Your task to perform on an android device: Open Google Maps and go to "Timeline" Image 0: 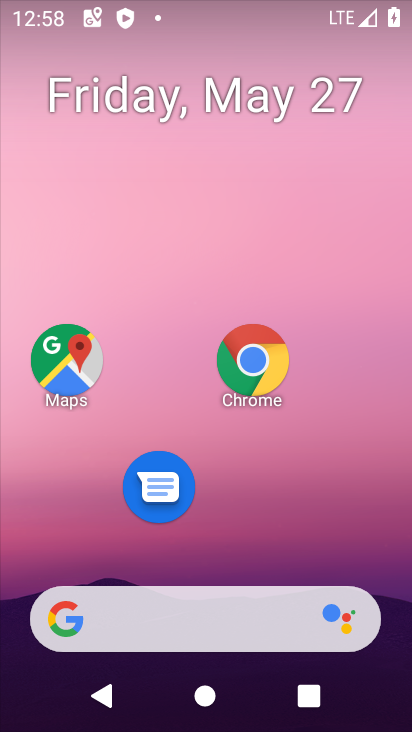
Step 0: click (73, 365)
Your task to perform on an android device: Open Google Maps and go to "Timeline" Image 1: 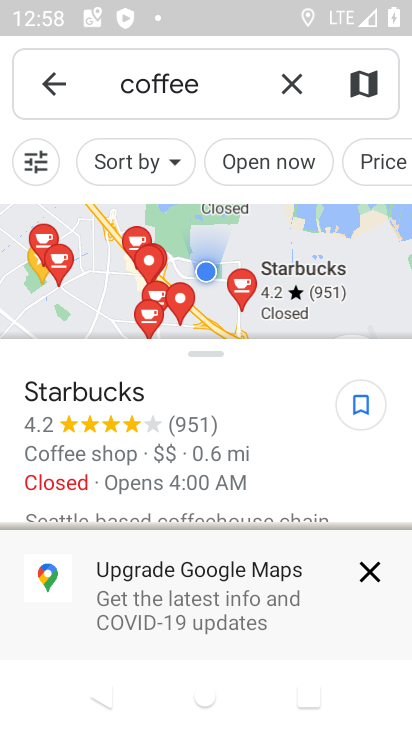
Step 1: click (290, 94)
Your task to perform on an android device: Open Google Maps and go to "Timeline" Image 2: 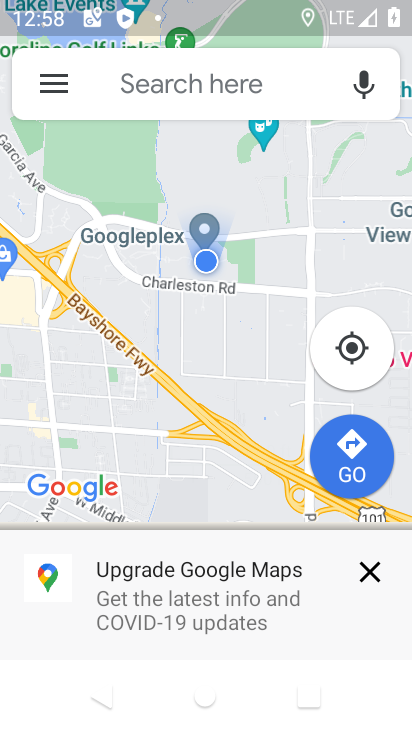
Step 2: click (42, 85)
Your task to perform on an android device: Open Google Maps and go to "Timeline" Image 3: 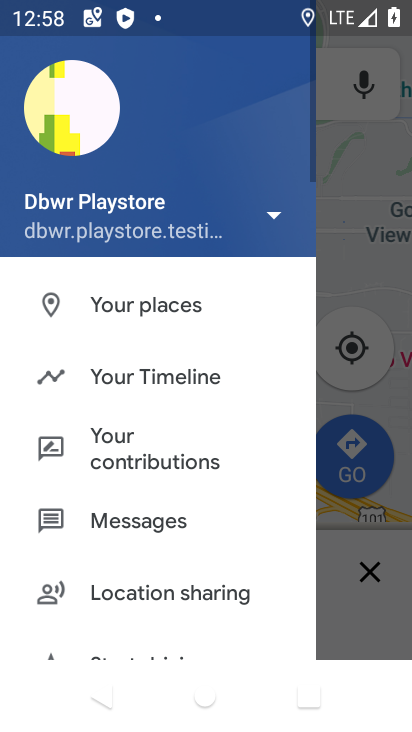
Step 3: click (157, 382)
Your task to perform on an android device: Open Google Maps and go to "Timeline" Image 4: 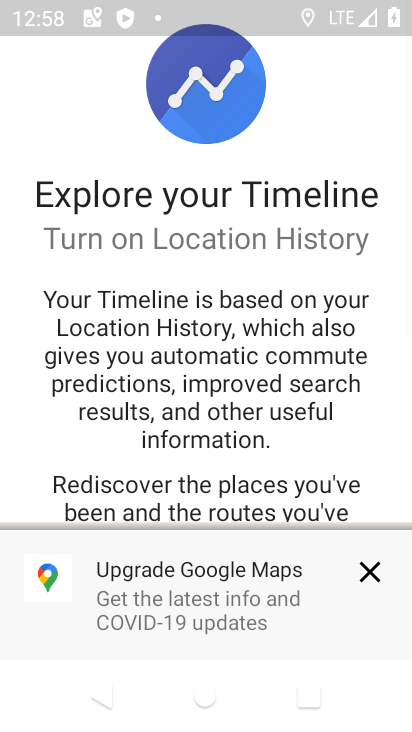
Step 4: drag from (275, 459) to (269, 52)
Your task to perform on an android device: Open Google Maps and go to "Timeline" Image 5: 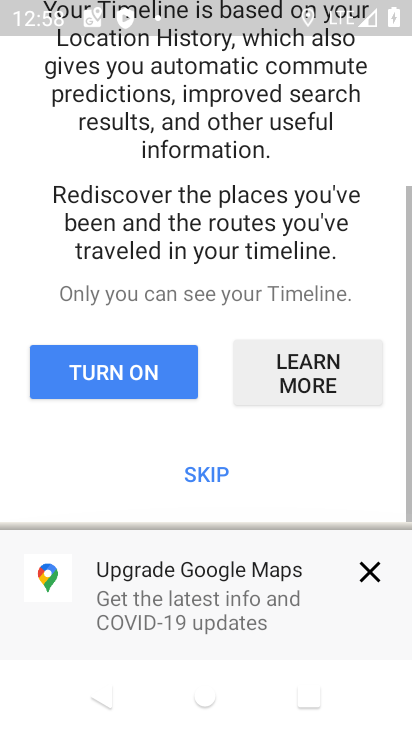
Step 5: click (224, 473)
Your task to perform on an android device: Open Google Maps and go to "Timeline" Image 6: 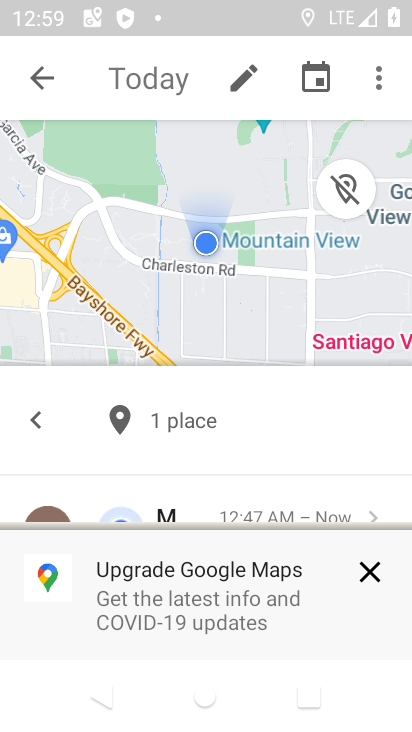
Step 6: task complete